Your task to perform on an android device: check android version Image 0: 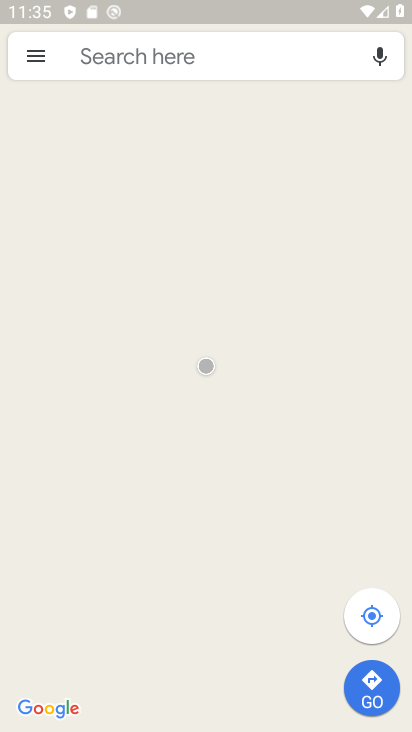
Step 0: press home button
Your task to perform on an android device: check android version Image 1: 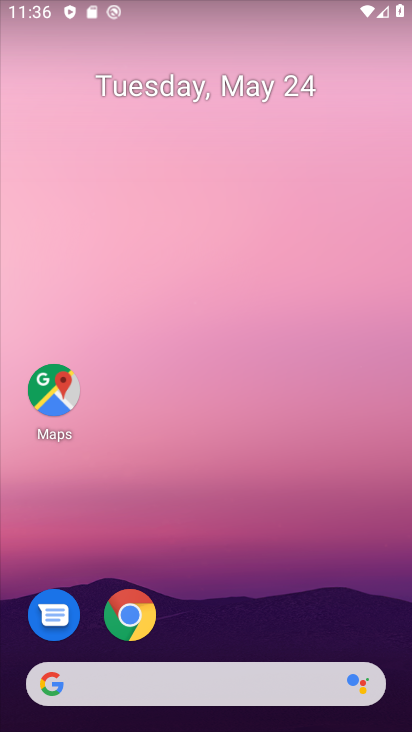
Step 1: drag from (252, 614) to (246, 236)
Your task to perform on an android device: check android version Image 2: 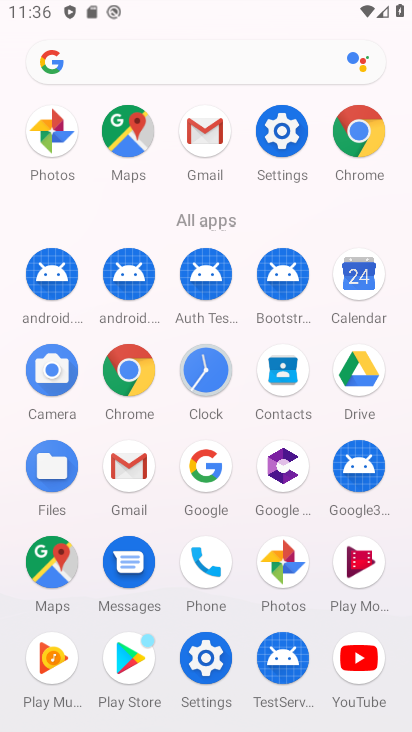
Step 2: click (284, 133)
Your task to perform on an android device: check android version Image 3: 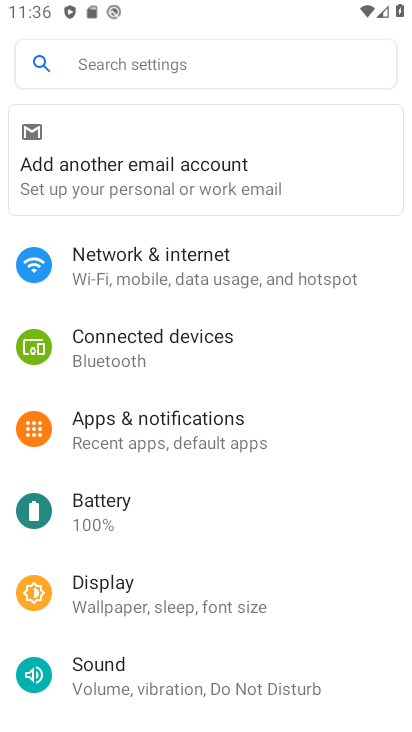
Step 3: drag from (160, 480) to (195, 343)
Your task to perform on an android device: check android version Image 4: 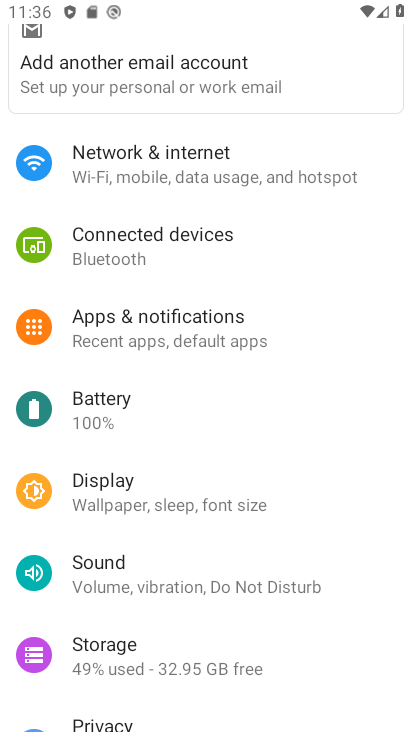
Step 4: drag from (168, 463) to (211, 359)
Your task to perform on an android device: check android version Image 5: 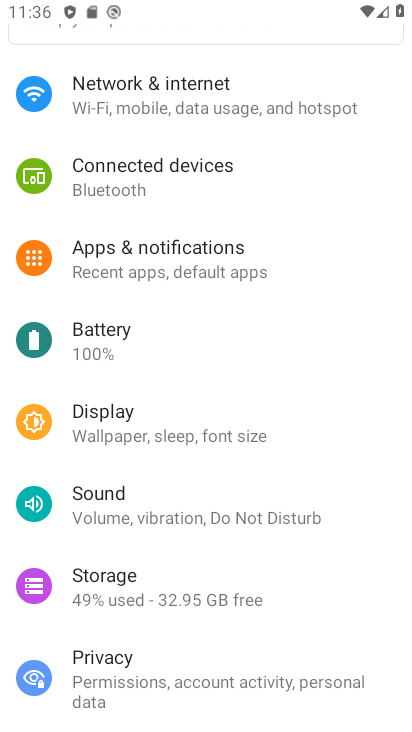
Step 5: drag from (162, 467) to (198, 376)
Your task to perform on an android device: check android version Image 6: 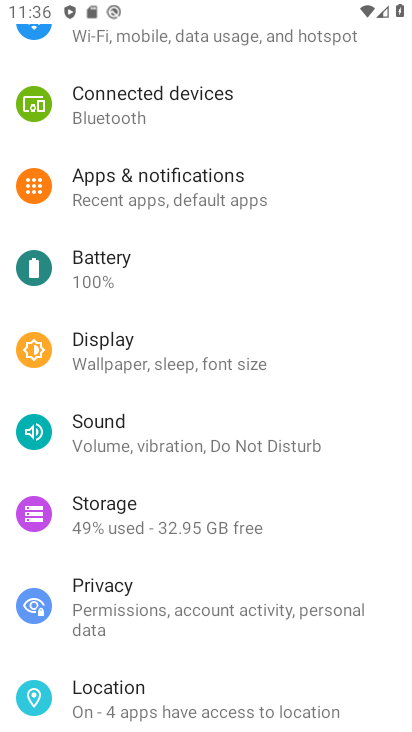
Step 6: drag from (159, 477) to (207, 376)
Your task to perform on an android device: check android version Image 7: 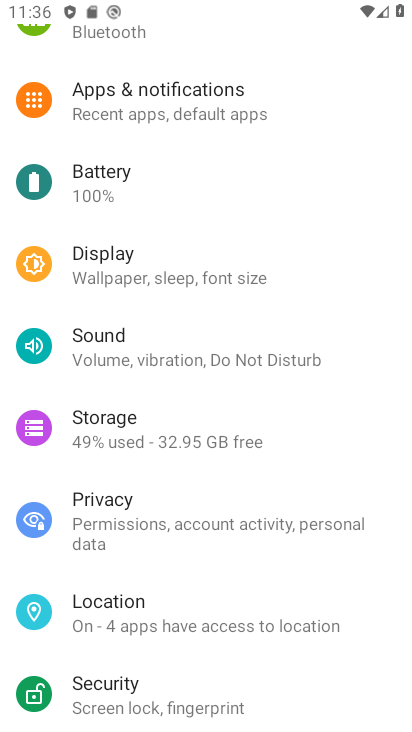
Step 7: drag from (149, 476) to (203, 368)
Your task to perform on an android device: check android version Image 8: 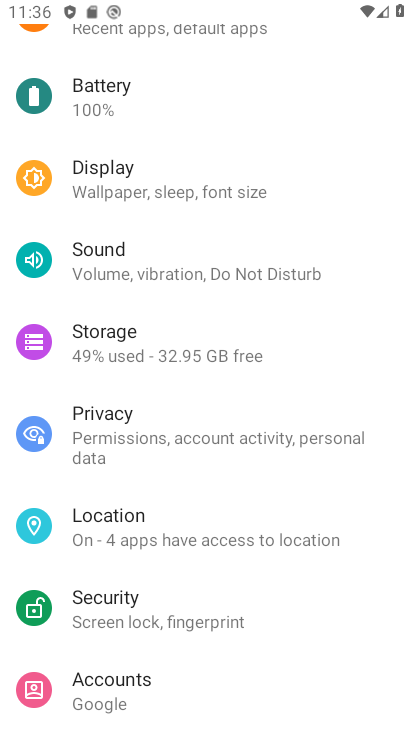
Step 8: drag from (156, 480) to (198, 388)
Your task to perform on an android device: check android version Image 9: 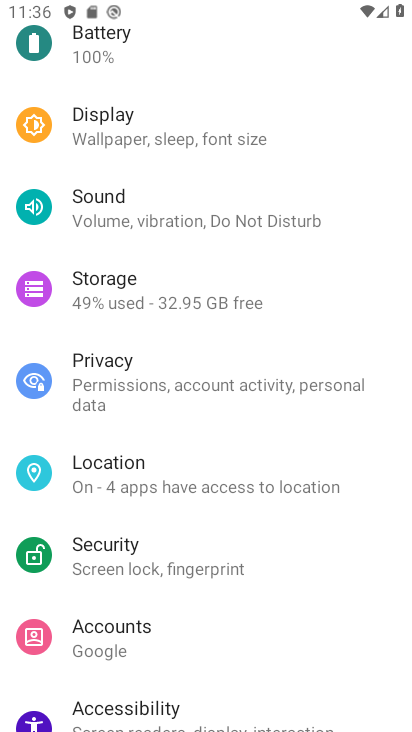
Step 9: drag from (144, 508) to (216, 408)
Your task to perform on an android device: check android version Image 10: 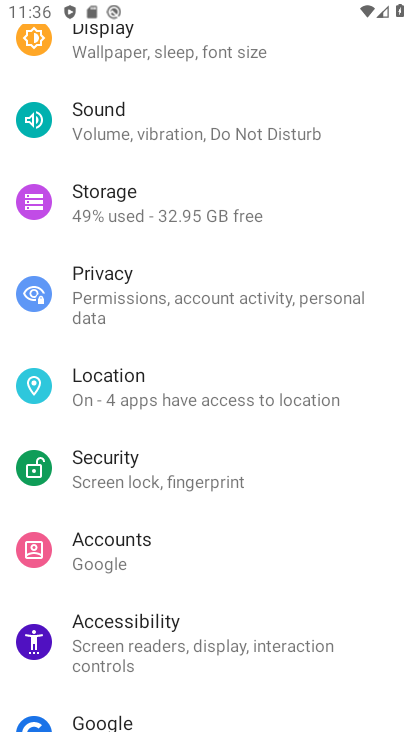
Step 10: drag from (127, 505) to (216, 404)
Your task to perform on an android device: check android version Image 11: 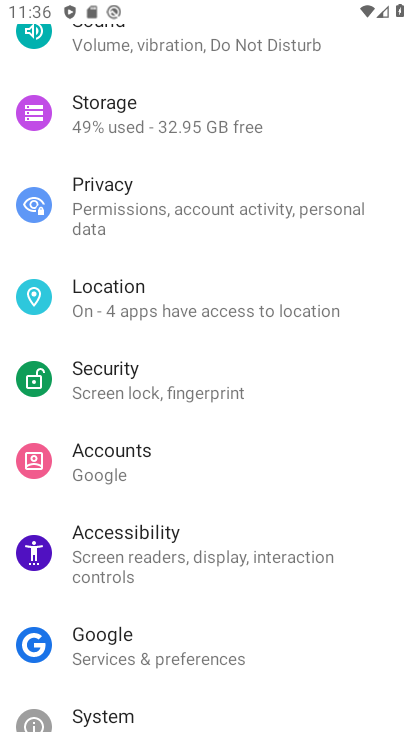
Step 11: drag from (146, 484) to (211, 367)
Your task to perform on an android device: check android version Image 12: 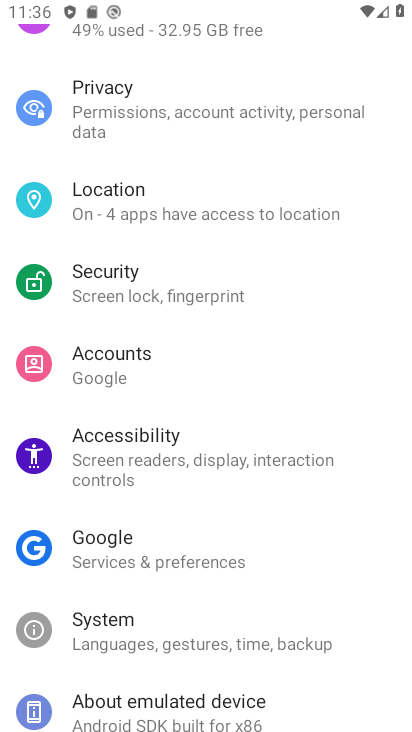
Step 12: drag from (147, 517) to (226, 380)
Your task to perform on an android device: check android version Image 13: 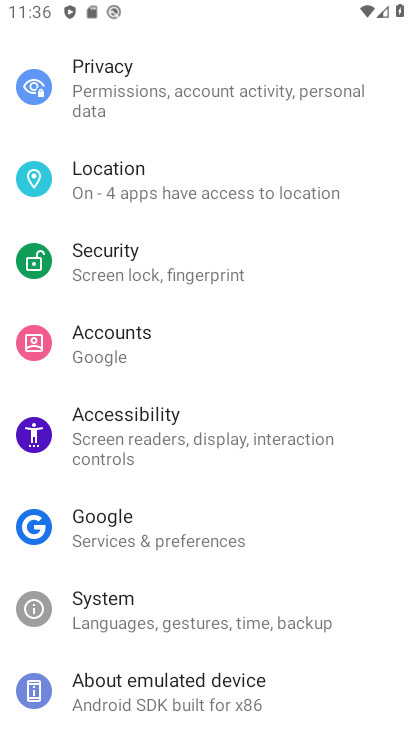
Step 13: click (161, 680)
Your task to perform on an android device: check android version Image 14: 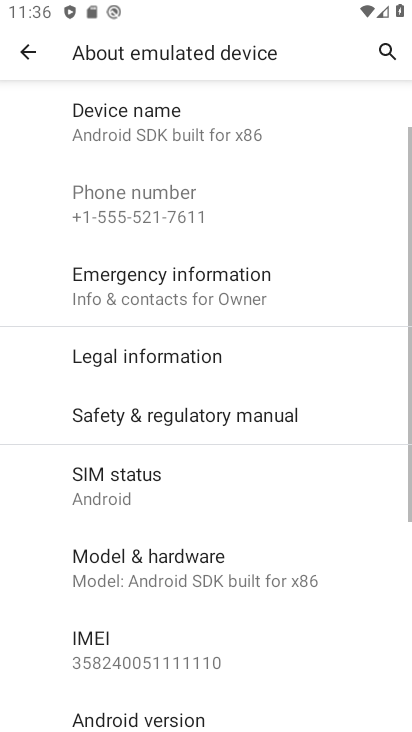
Step 14: drag from (183, 505) to (249, 404)
Your task to perform on an android device: check android version Image 15: 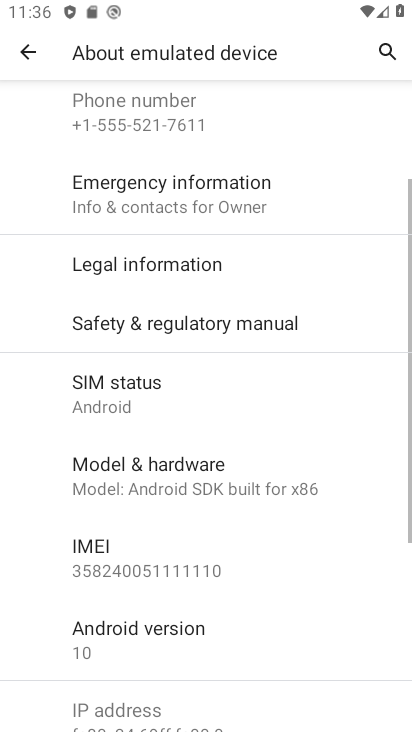
Step 15: click (146, 636)
Your task to perform on an android device: check android version Image 16: 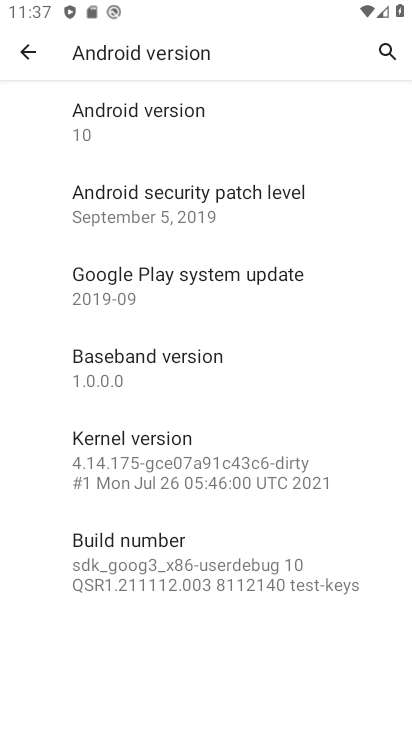
Step 16: task complete